Your task to perform on an android device: change text size in settings app Image 0: 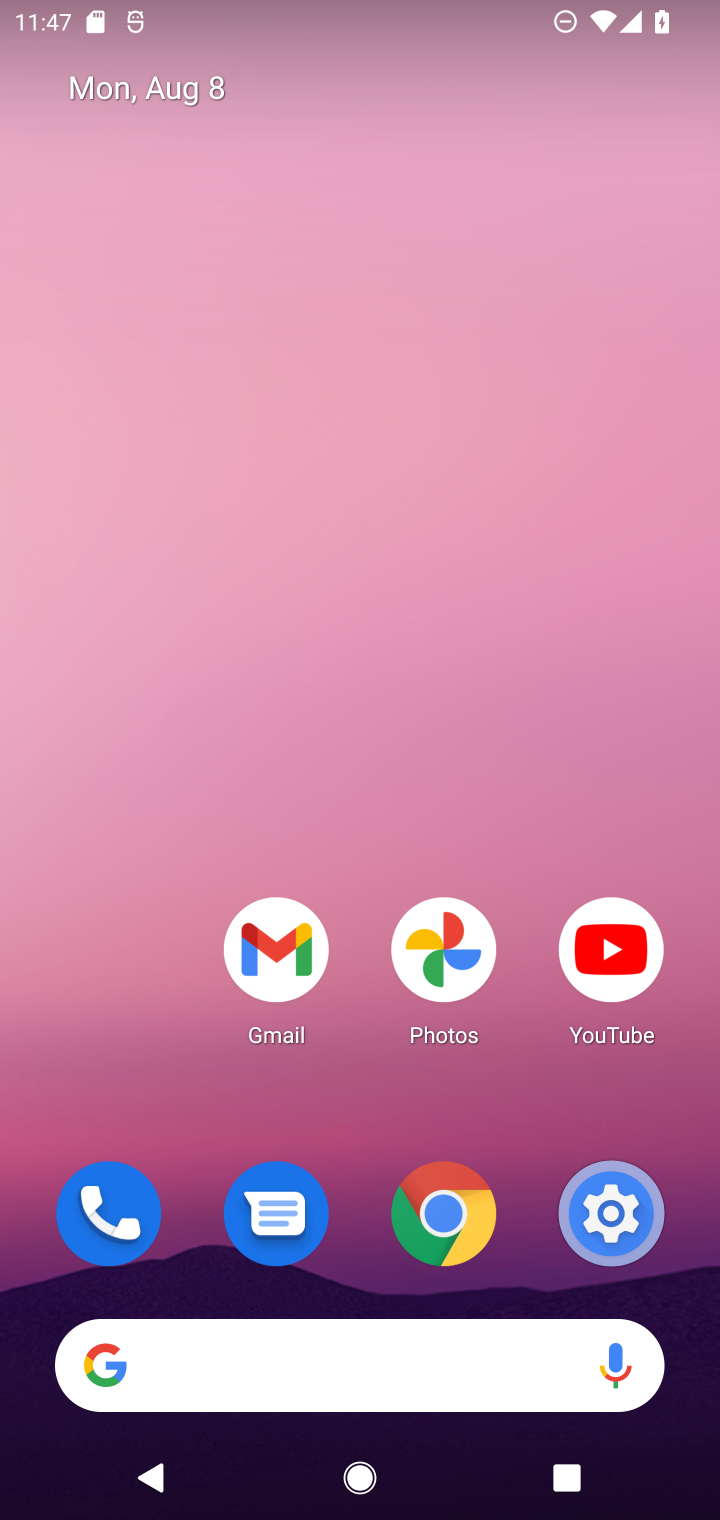
Step 0: press home button
Your task to perform on an android device: change text size in settings app Image 1: 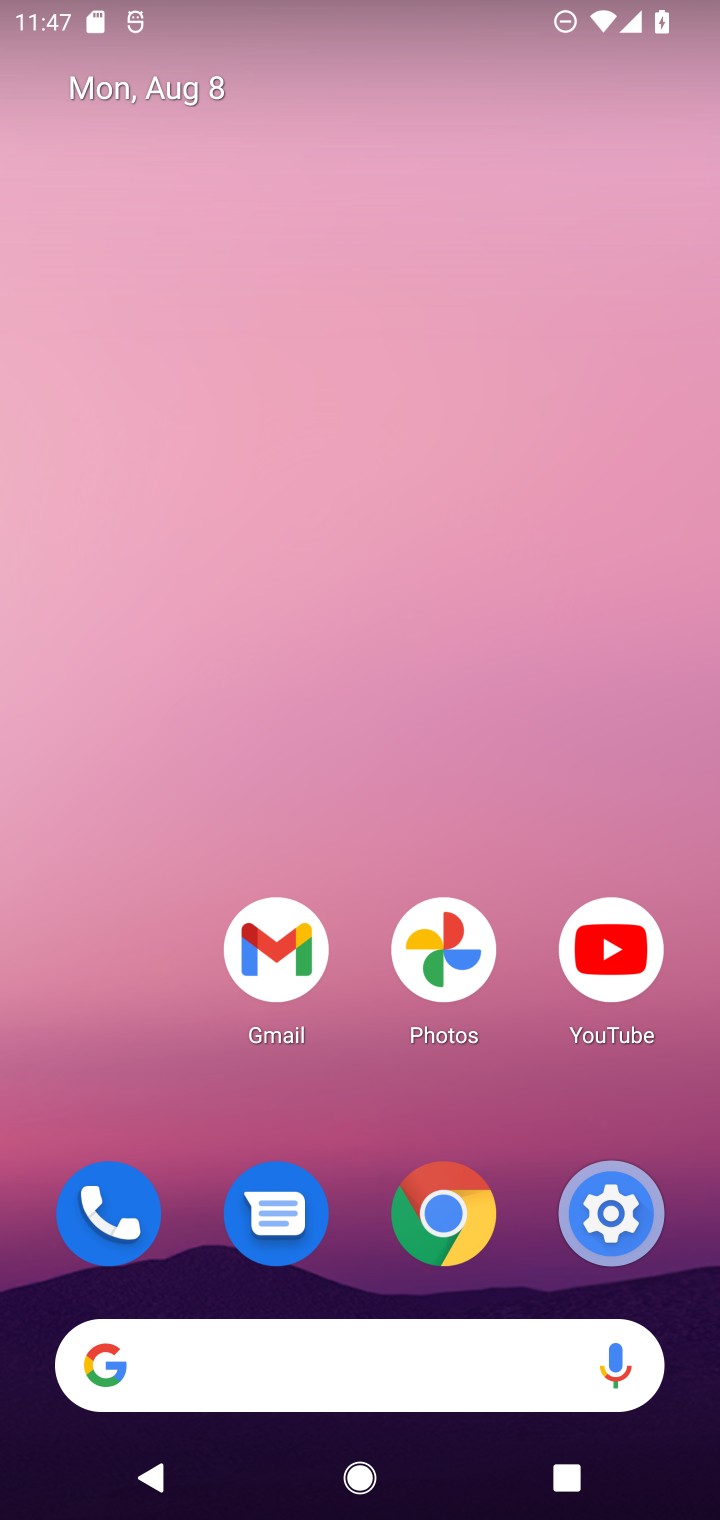
Step 1: click (623, 1190)
Your task to perform on an android device: change text size in settings app Image 2: 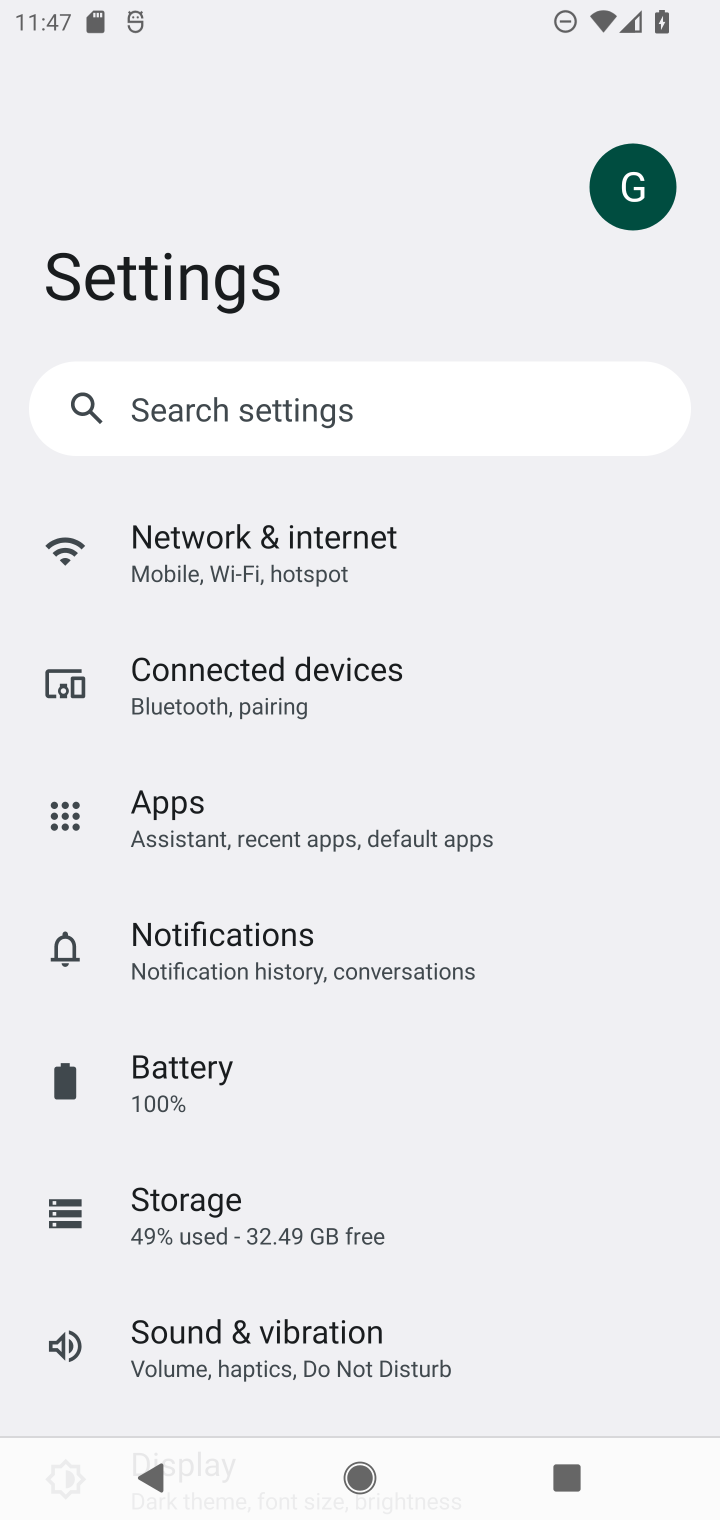
Step 2: drag from (254, 1235) to (375, 565)
Your task to perform on an android device: change text size in settings app Image 3: 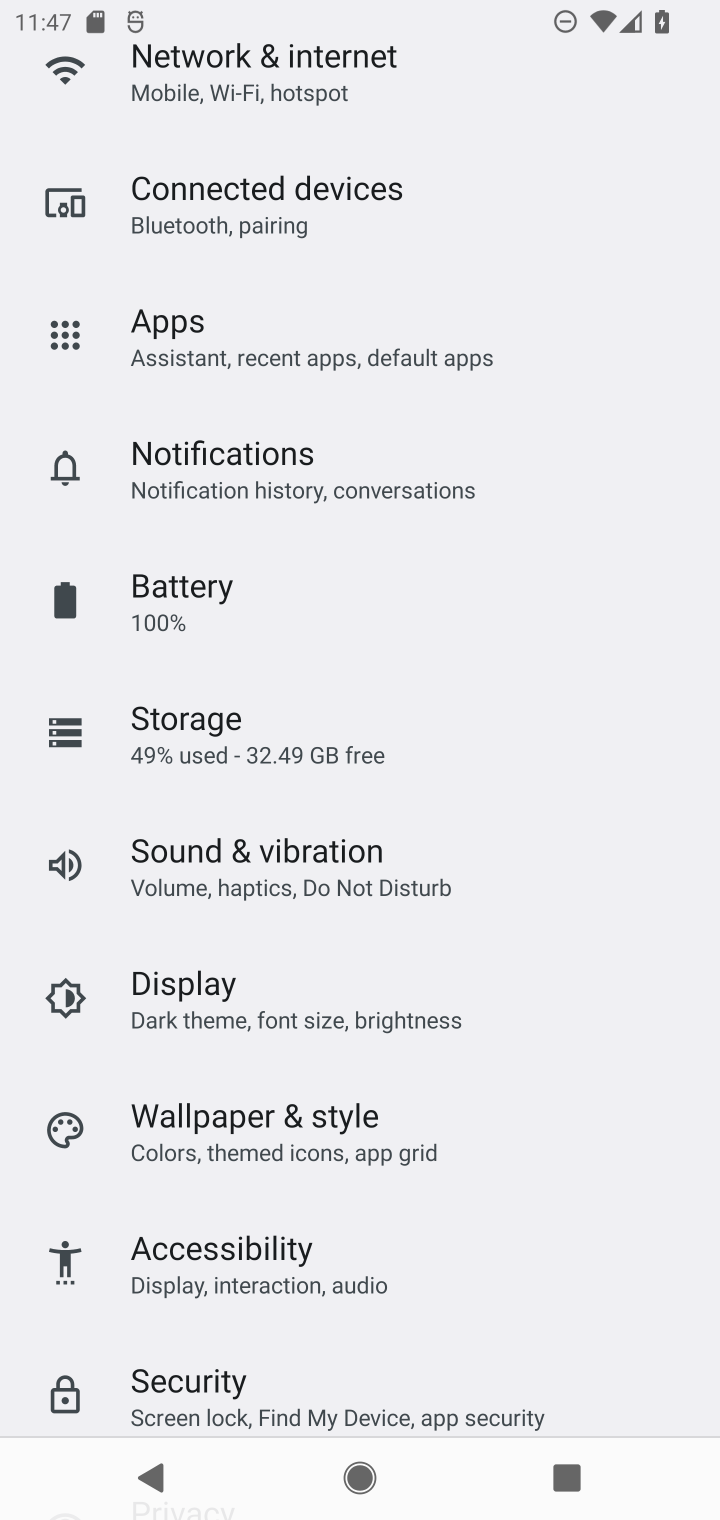
Step 3: click (272, 974)
Your task to perform on an android device: change text size in settings app Image 4: 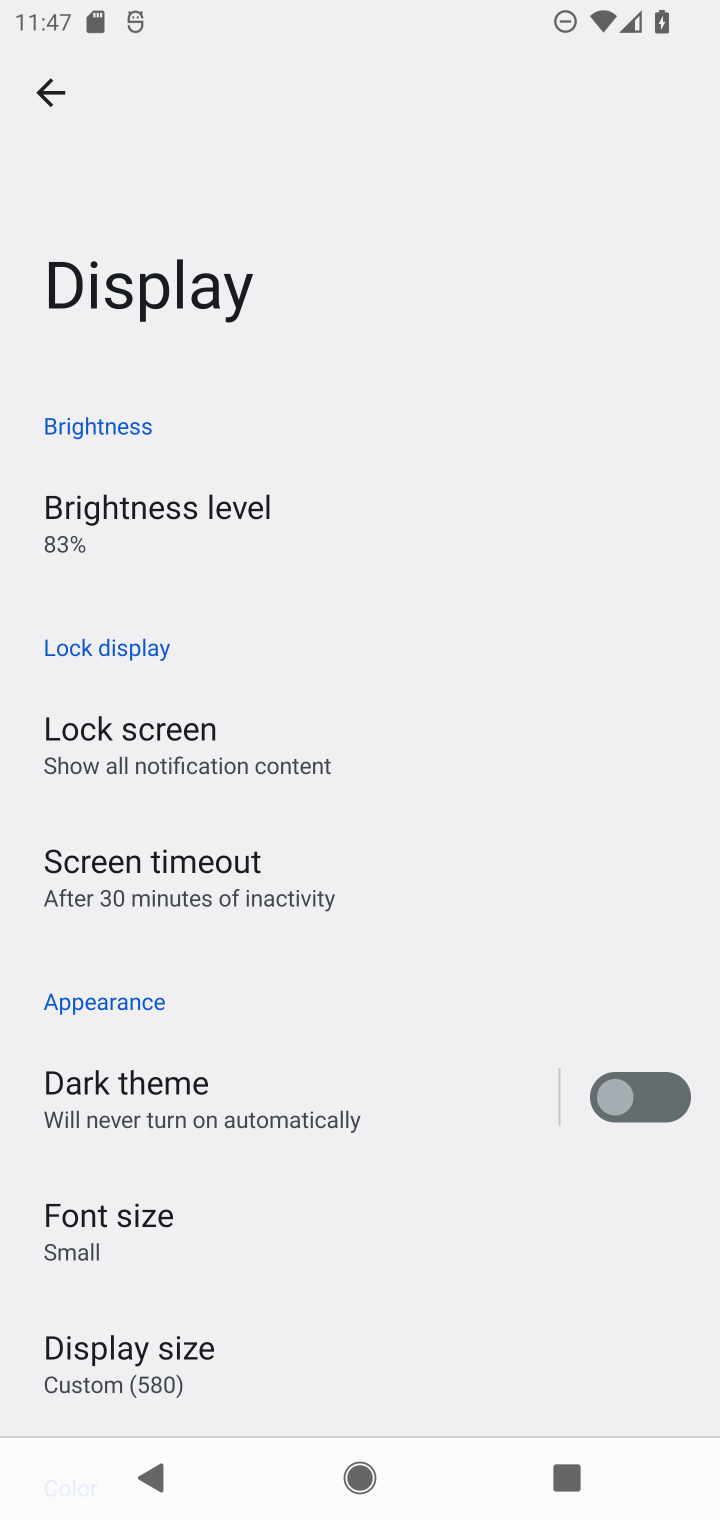
Step 4: click (190, 1235)
Your task to perform on an android device: change text size in settings app Image 5: 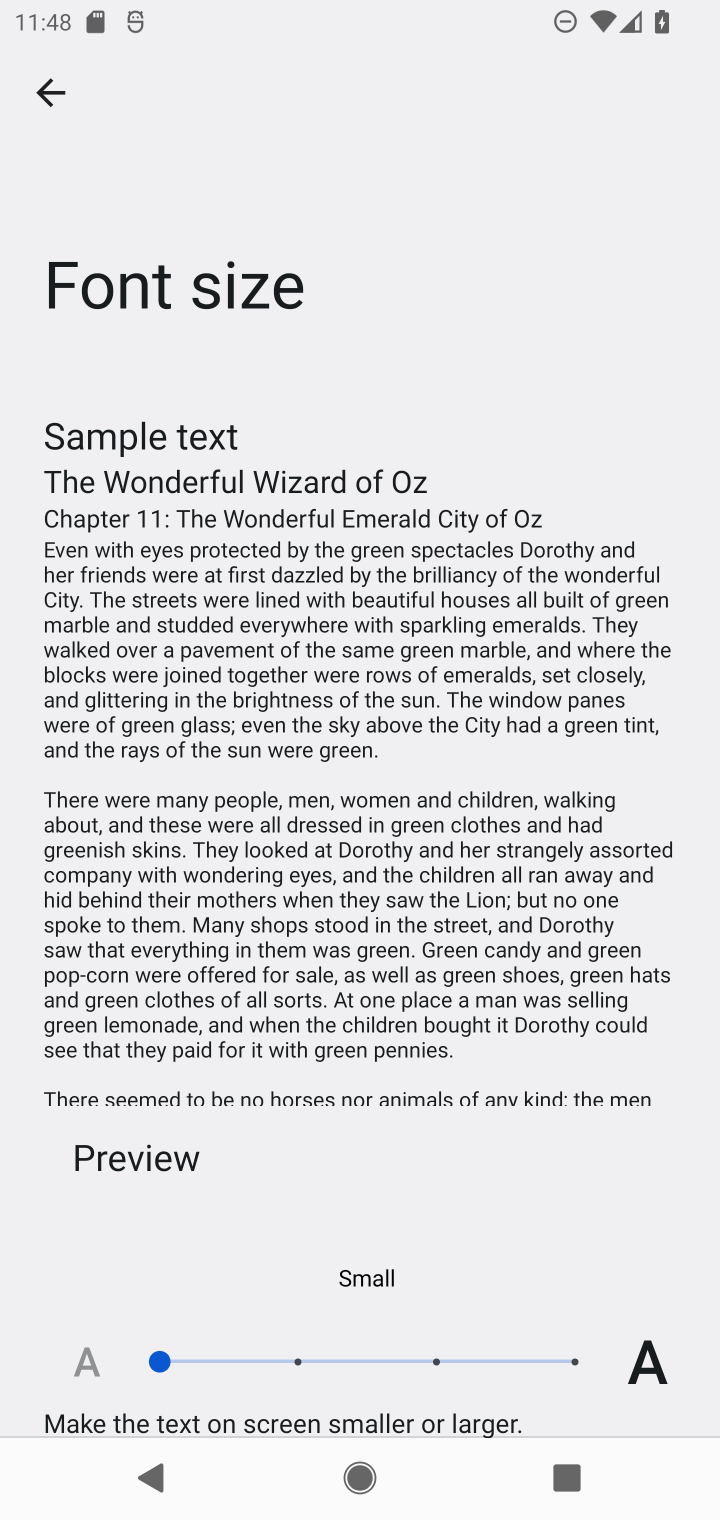
Step 5: click (300, 1359)
Your task to perform on an android device: change text size in settings app Image 6: 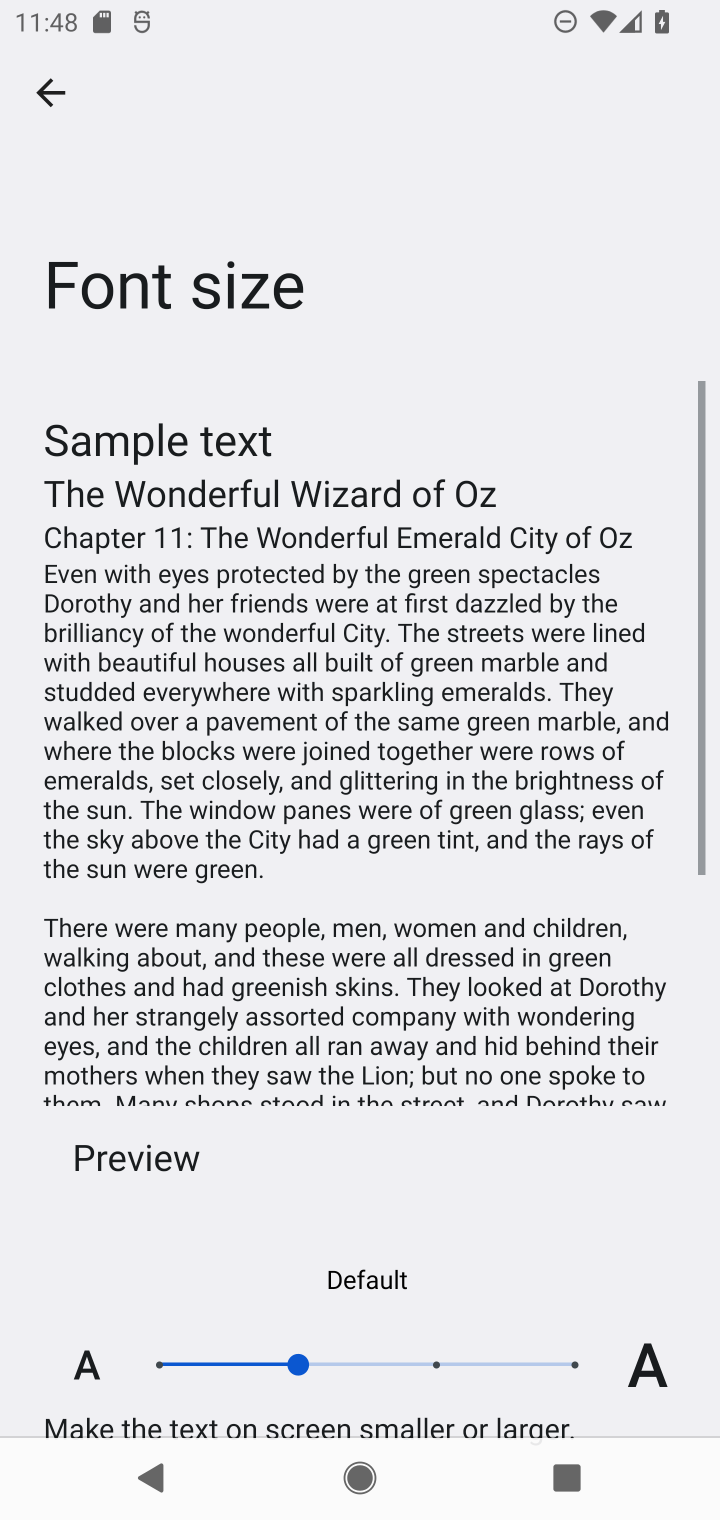
Step 6: task complete